Your task to perform on an android device: open a bookmark in the chrome app Image 0: 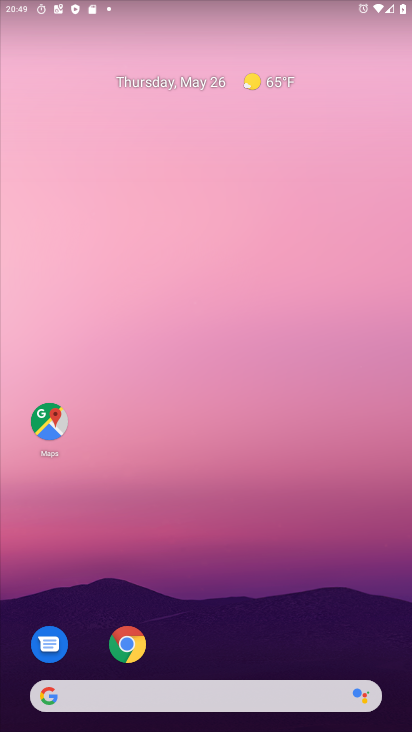
Step 0: drag from (177, 670) to (211, 266)
Your task to perform on an android device: open a bookmark in the chrome app Image 1: 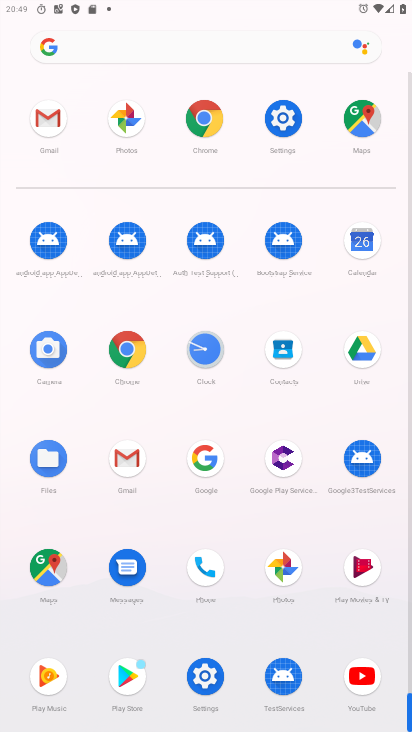
Step 1: click (123, 350)
Your task to perform on an android device: open a bookmark in the chrome app Image 2: 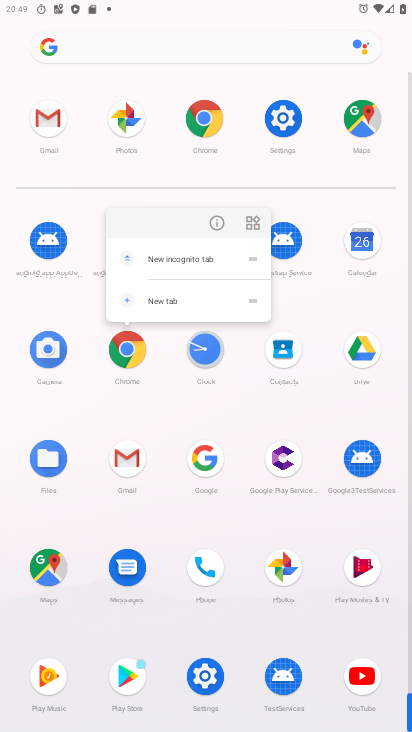
Step 2: click (217, 223)
Your task to perform on an android device: open a bookmark in the chrome app Image 3: 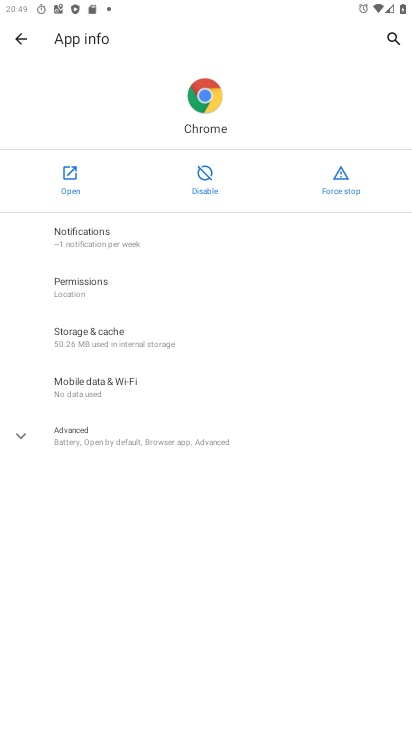
Step 3: click (67, 183)
Your task to perform on an android device: open a bookmark in the chrome app Image 4: 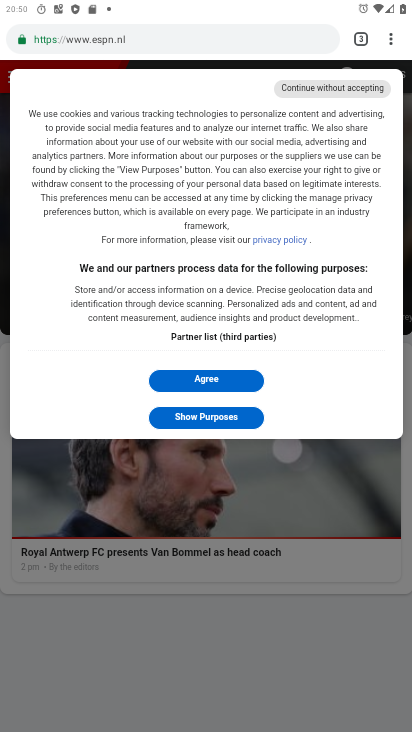
Step 4: task complete